Your task to perform on an android device: all mails in gmail Image 0: 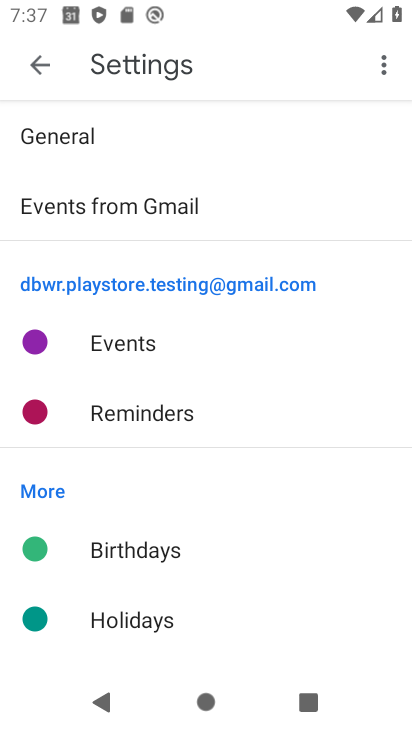
Step 0: press home button
Your task to perform on an android device: all mails in gmail Image 1: 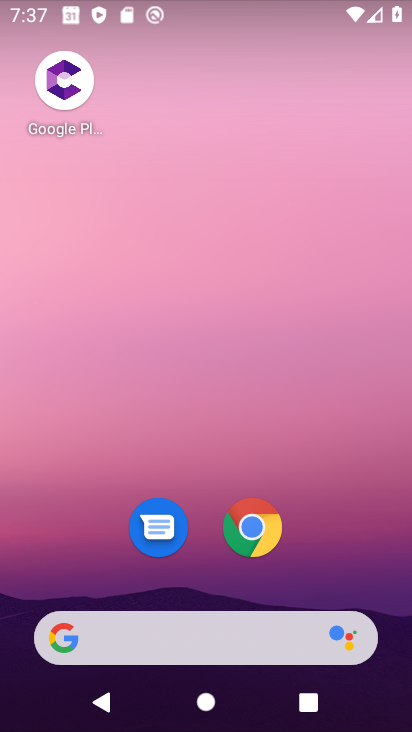
Step 1: drag from (202, 551) to (267, 2)
Your task to perform on an android device: all mails in gmail Image 2: 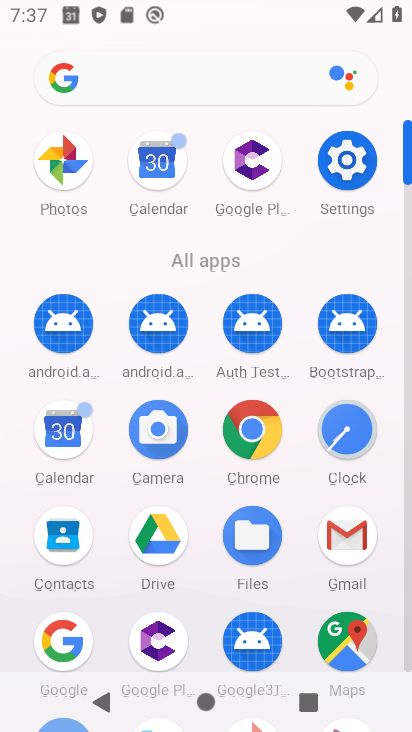
Step 2: click (343, 529)
Your task to perform on an android device: all mails in gmail Image 3: 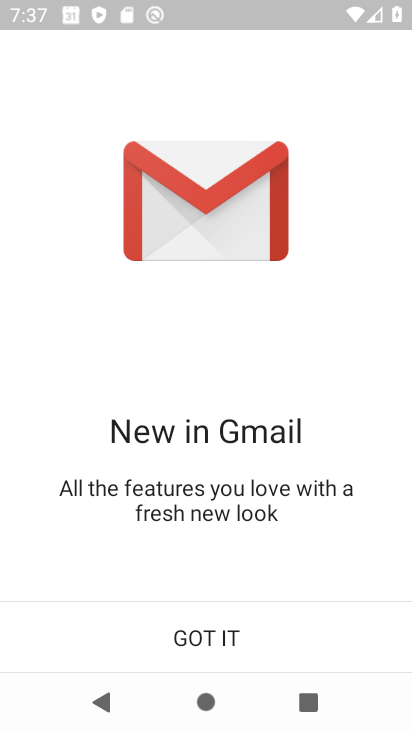
Step 3: click (233, 627)
Your task to perform on an android device: all mails in gmail Image 4: 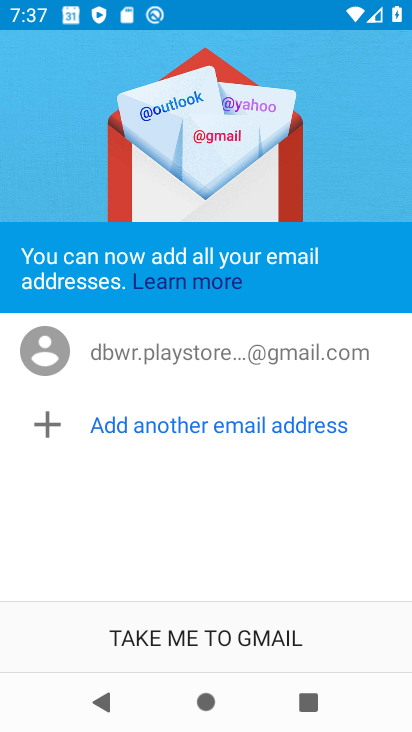
Step 4: click (233, 627)
Your task to perform on an android device: all mails in gmail Image 5: 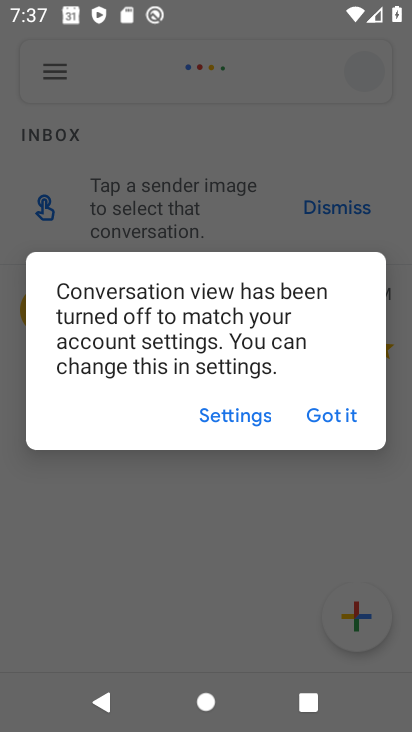
Step 5: click (323, 417)
Your task to perform on an android device: all mails in gmail Image 6: 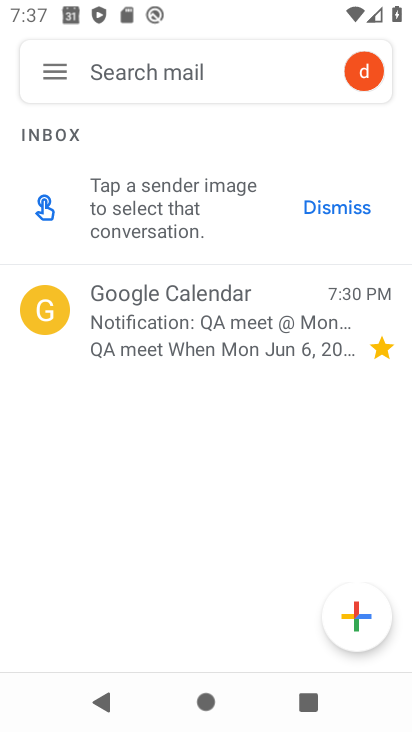
Step 6: click (51, 72)
Your task to perform on an android device: all mails in gmail Image 7: 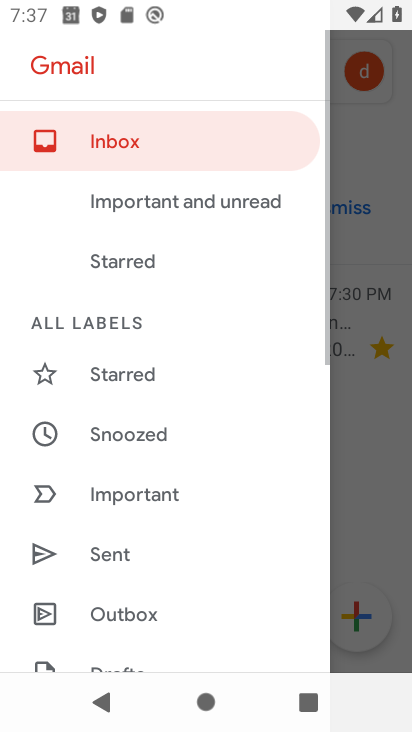
Step 7: drag from (139, 600) to (159, 197)
Your task to perform on an android device: all mails in gmail Image 8: 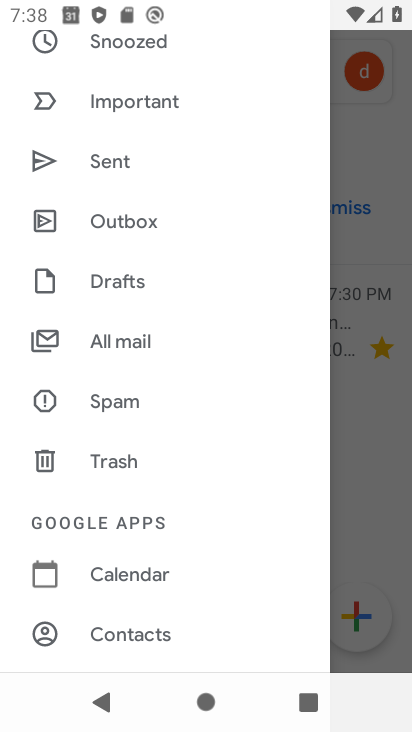
Step 8: click (107, 344)
Your task to perform on an android device: all mails in gmail Image 9: 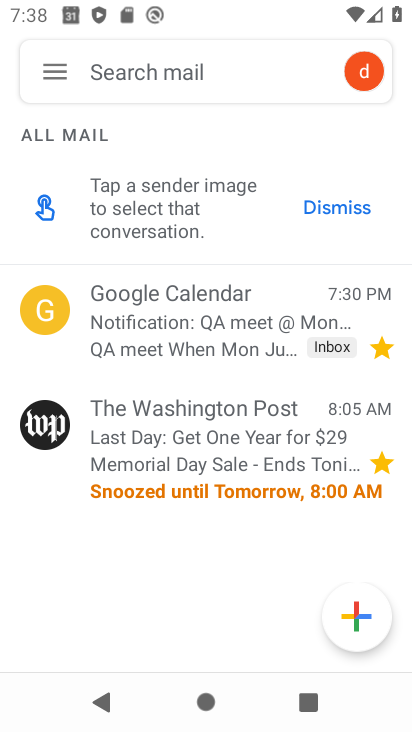
Step 9: task complete